Your task to perform on an android device: Show me popular games on the Play Store Image 0: 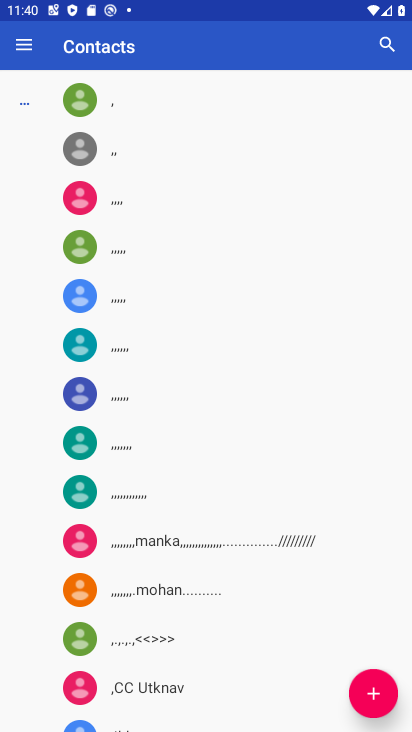
Step 0: press home button
Your task to perform on an android device: Show me popular games on the Play Store Image 1: 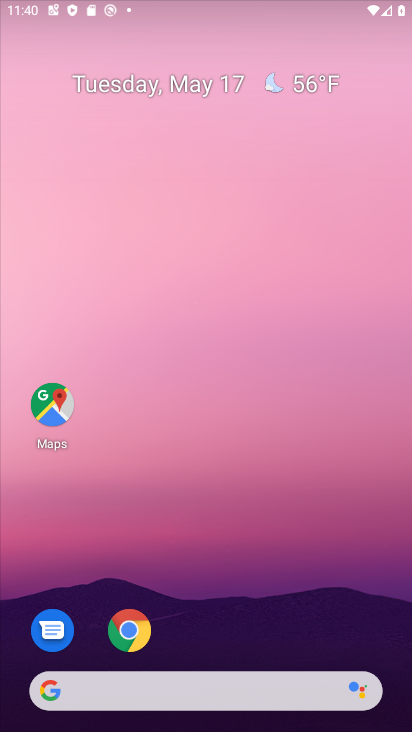
Step 1: drag from (349, 570) to (289, 194)
Your task to perform on an android device: Show me popular games on the Play Store Image 2: 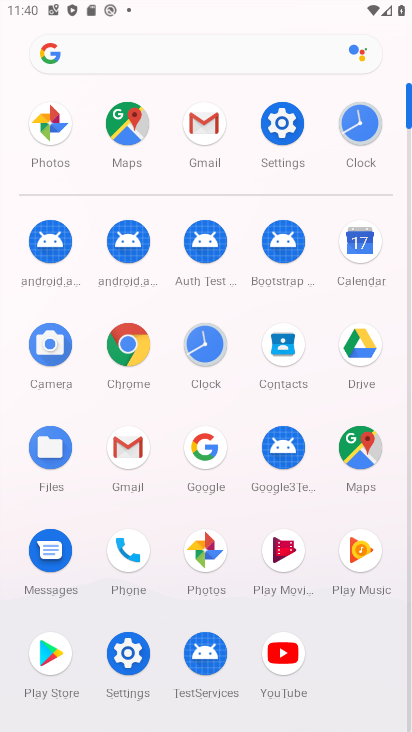
Step 2: click (36, 668)
Your task to perform on an android device: Show me popular games on the Play Store Image 3: 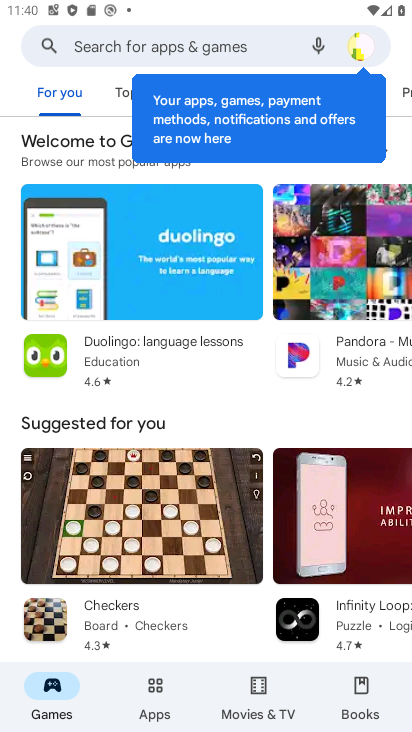
Step 3: click (155, 699)
Your task to perform on an android device: Show me popular games on the Play Store Image 4: 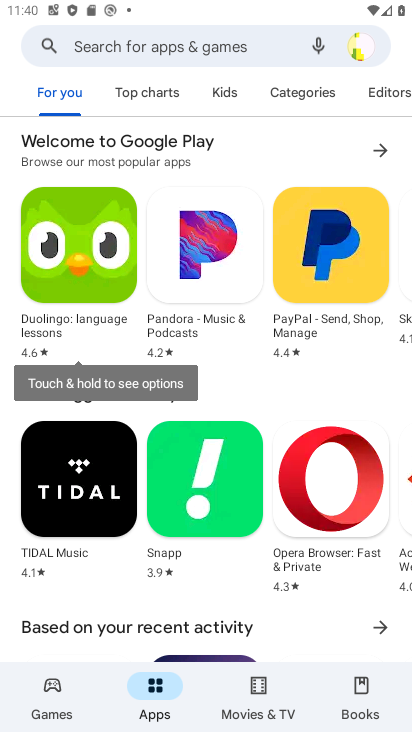
Step 4: drag from (313, 97) to (116, 100)
Your task to perform on an android device: Show me popular games on the Play Store Image 5: 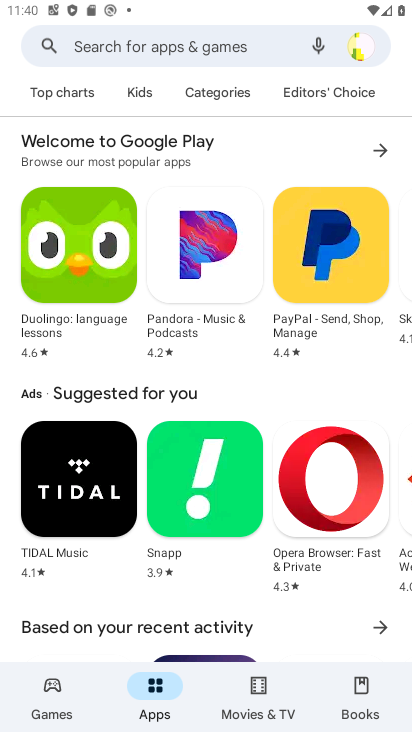
Step 5: click (43, 715)
Your task to perform on an android device: Show me popular games on the Play Store Image 6: 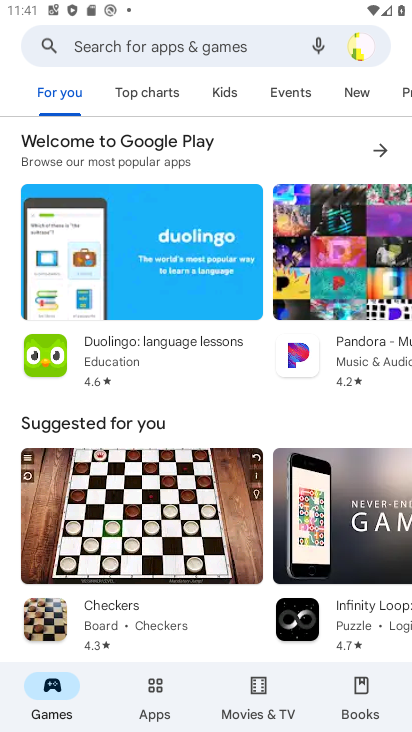
Step 6: click (153, 91)
Your task to perform on an android device: Show me popular games on the Play Store Image 7: 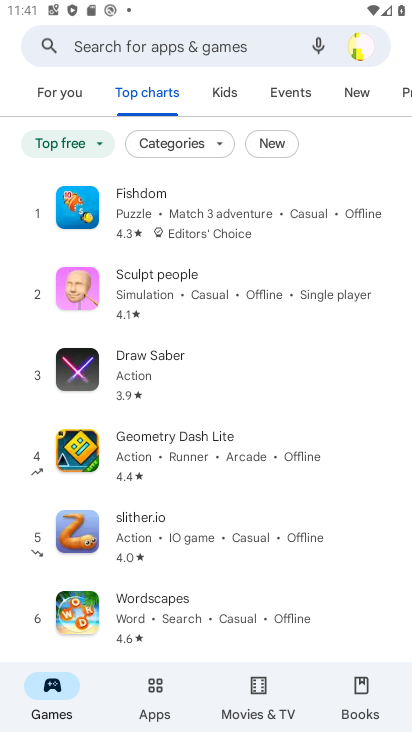
Step 7: task complete